Your task to perform on an android device: turn notification dots off Image 0: 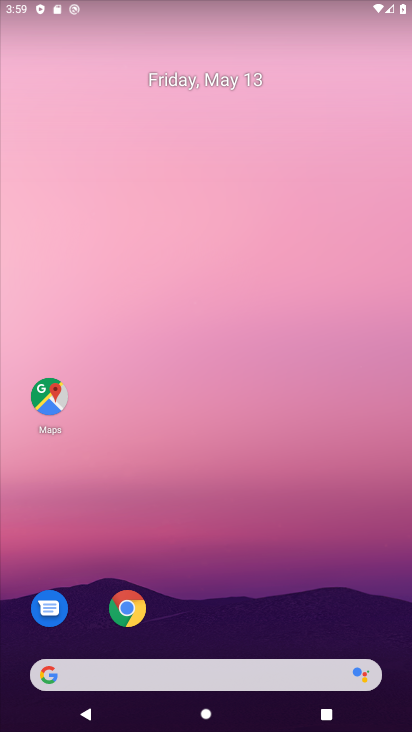
Step 0: drag from (296, 615) to (313, 3)
Your task to perform on an android device: turn notification dots off Image 1: 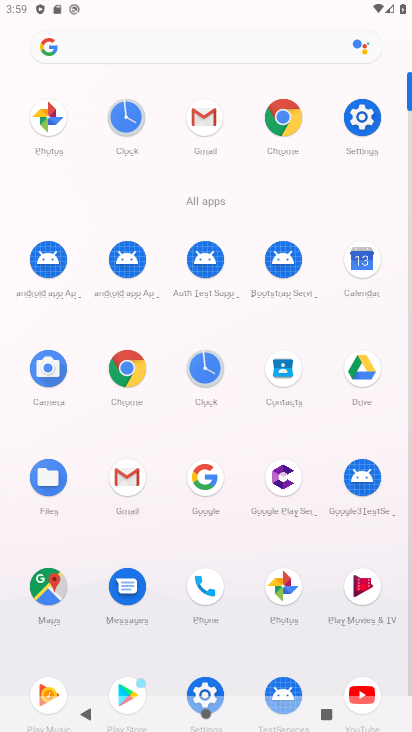
Step 1: click (360, 129)
Your task to perform on an android device: turn notification dots off Image 2: 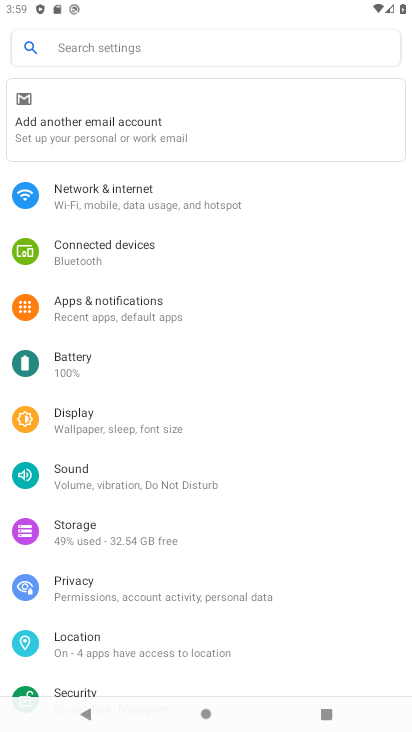
Step 2: click (159, 316)
Your task to perform on an android device: turn notification dots off Image 3: 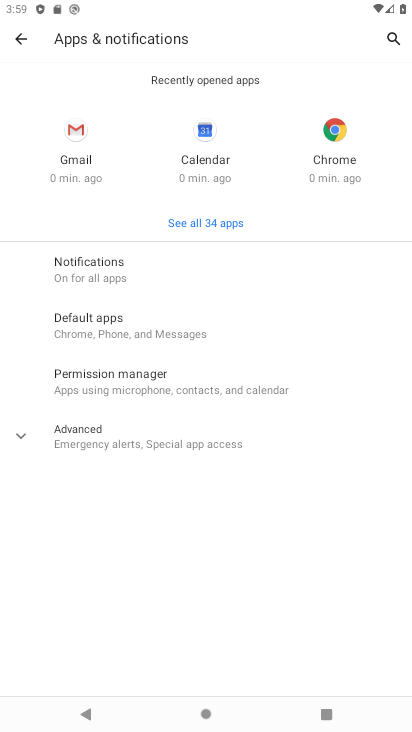
Step 3: click (148, 275)
Your task to perform on an android device: turn notification dots off Image 4: 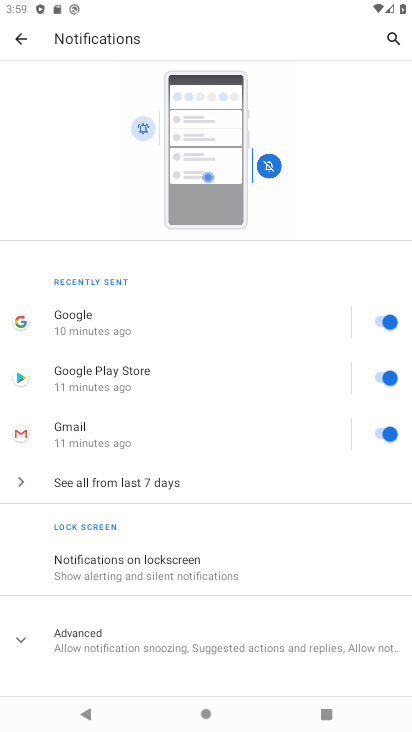
Step 4: drag from (262, 558) to (311, 263)
Your task to perform on an android device: turn notification dots off Image 5: 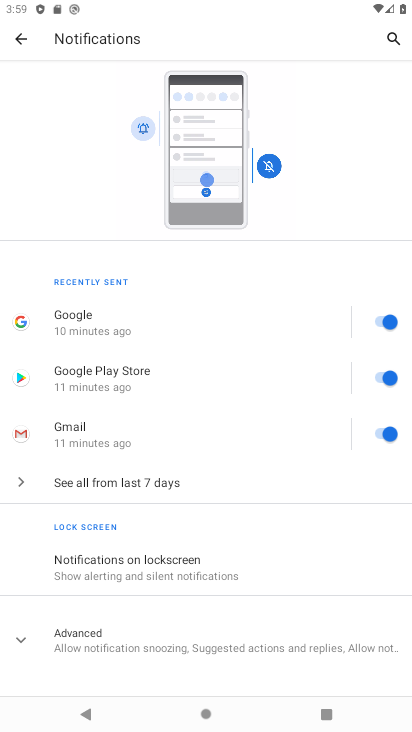
Step 5: click (231, 641)
Your task to perform on an android device: turn notification dots off Image 6: 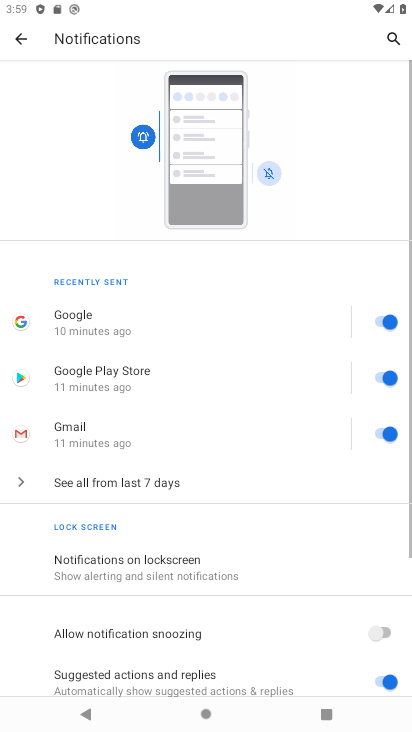
Step 6: drag from (243, 660) to (230, 177)
Your task to perform on an android device: turn notification dots off Image 7: 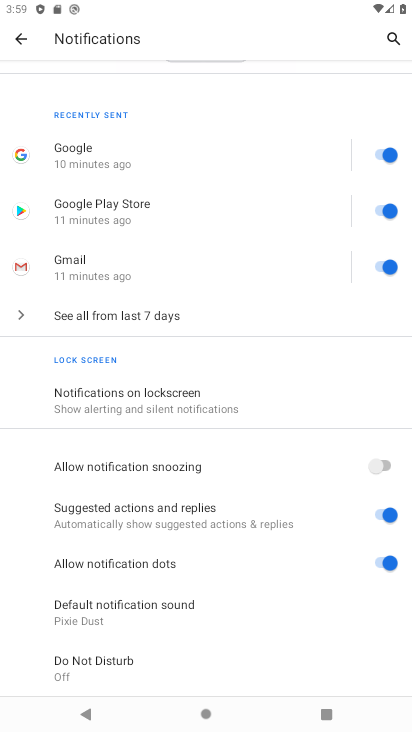
Step 7: click (384, 560)
Your task to perform on an android device: turn notification dots off Image 8: 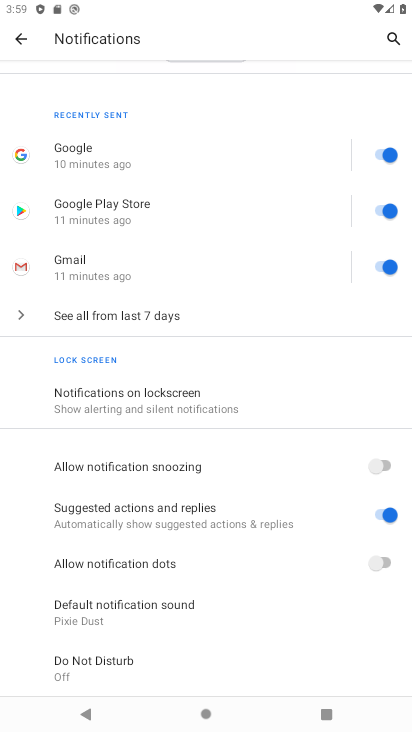
Step 8: task complete